Your task to perform on an android device: Go to display settings Image 0: 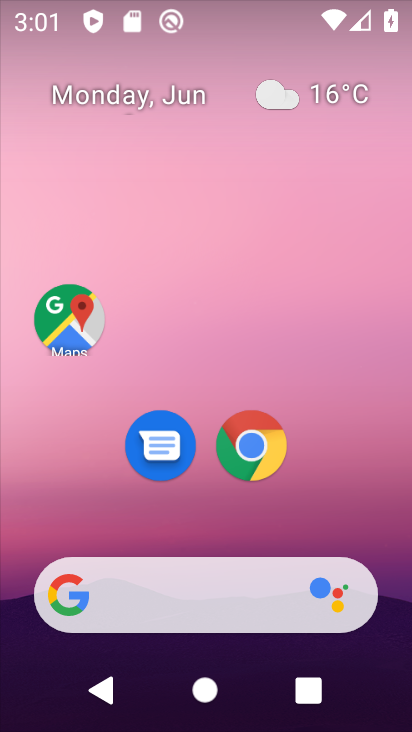
Step 0: click (268, 254)
Your task to perform on an android device: Go to display settings Image 1: 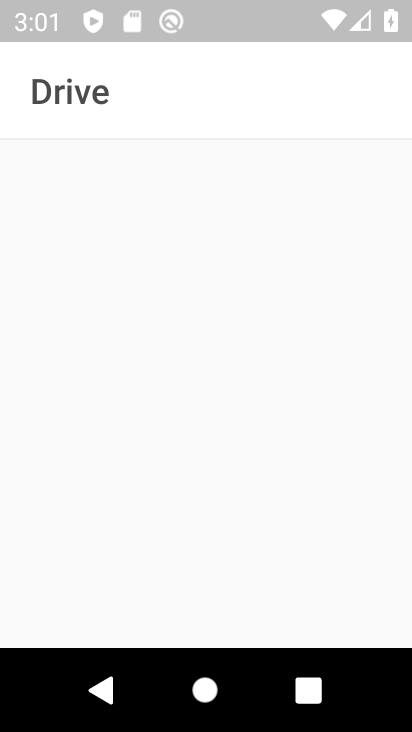
Step 1: press home button
Your task to perform on an android device: Go to display settings Image 2: 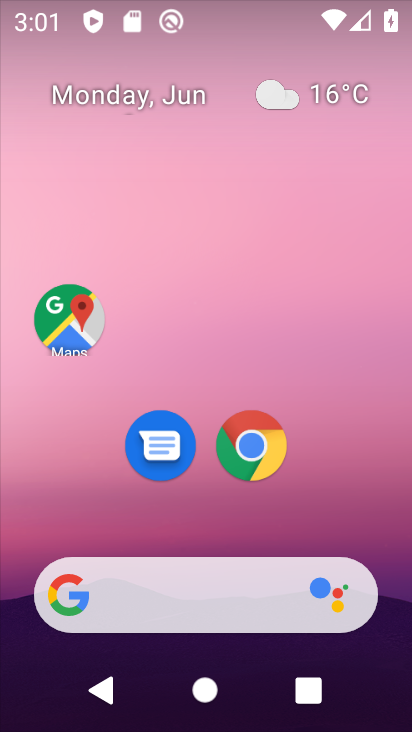
Step 2: drag from (324, 500) to (331, 212)
Your task to perform on an android device: Go to display settings Image 3: 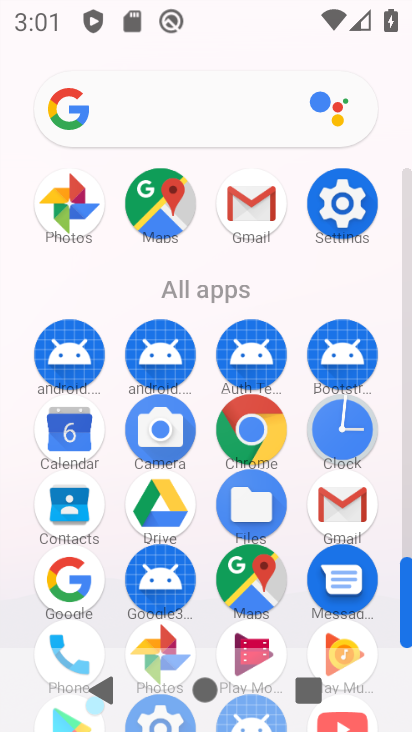
Step 3: click (336, 190)
Your task to perform on an android device: Go to display settings Image 4: 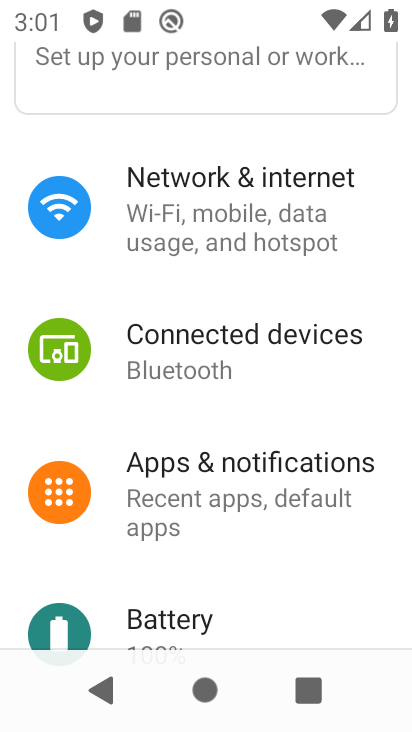
Step 4: click (336, 198)
Your task to perform on an android device: Go to display settings Image 5: 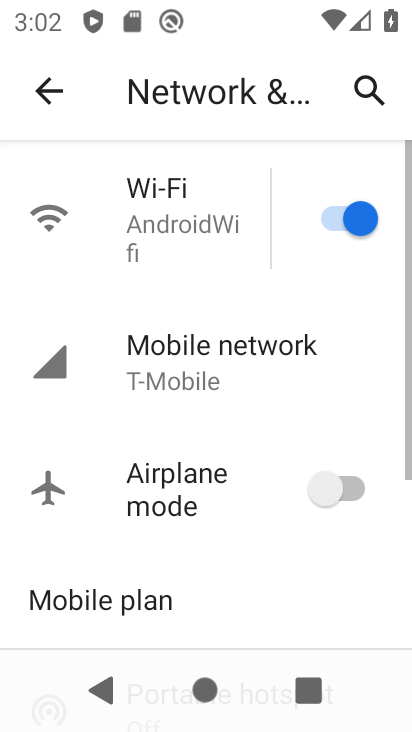
Step 5: drag from (212, 583) to (273, 227)
Your task to perform on an android device: Go to display settings Image 6: 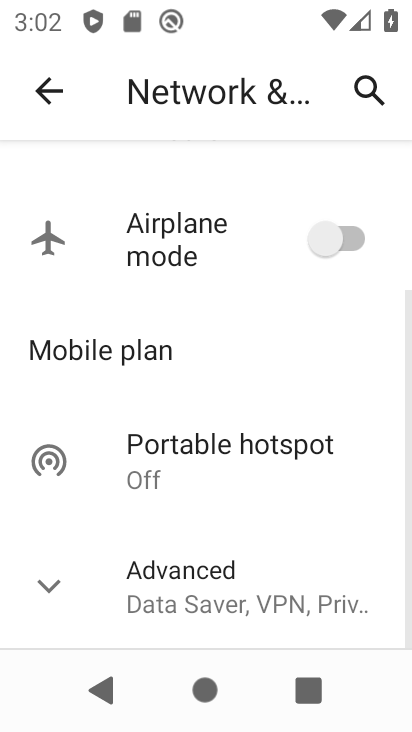
Step 6: click (52, 51)
Your task to perform on an android device: Go to display settings Image 7: 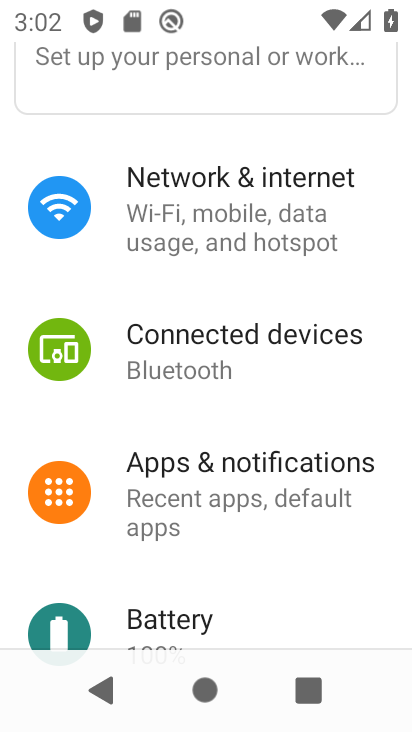
Step 7: drag from (239, 587) to (292, 137)
Your task to perform on an android device: Go to display settings Image 8: 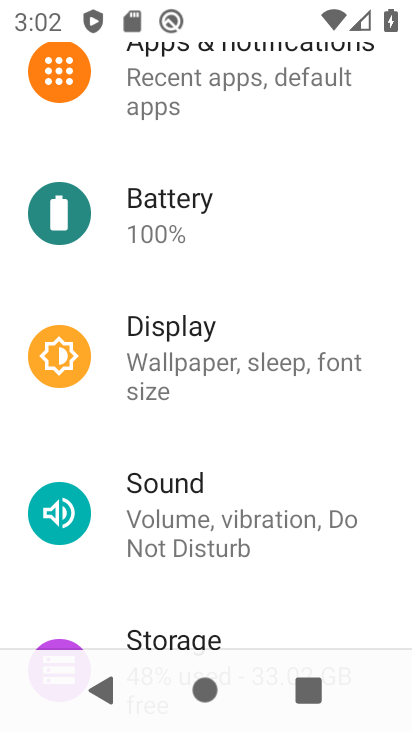
Step 8: drag from (200, 510) to (242, 350)
Your task to perform on an android device: Go to display settings Image 9: 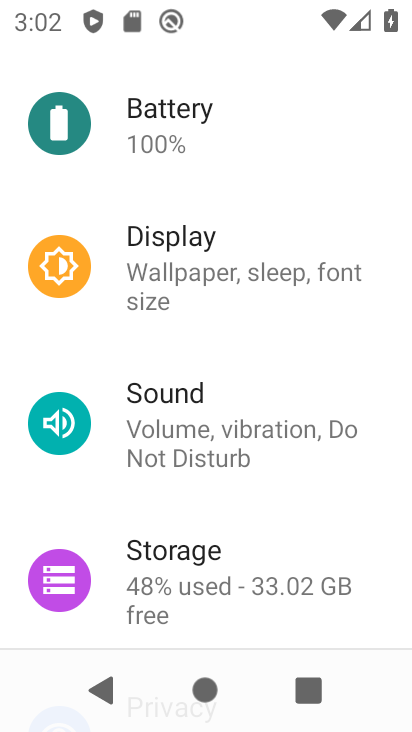
Step 9: click (217, 262)
Your task to perform on an android device: Go to display settings Image 10: 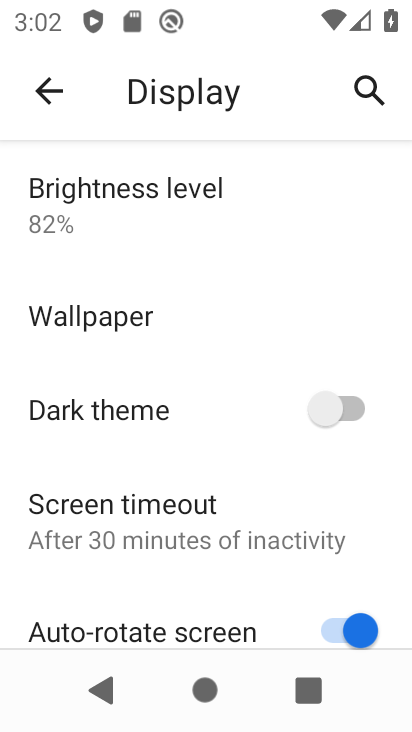
Step 10: task complete